Your task to perform on an android device: Go to calendar. Show me events next week Image 0: 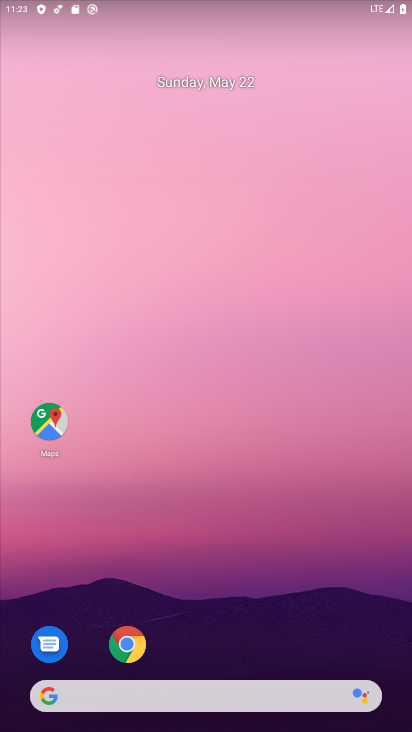
Step 0: click (243, 74)
Your task to perform on an android device: Go to calendar. Show me events next week Image 1: 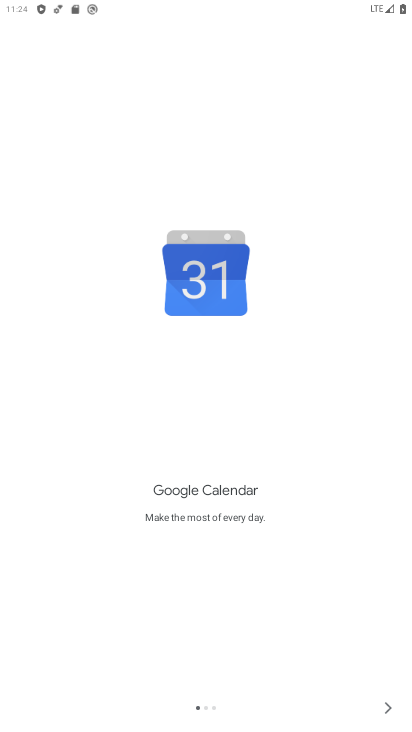
Step 1: click (389, 710)
Your task to perform on an android device: Go to calendar. Show me events next week Image 2: 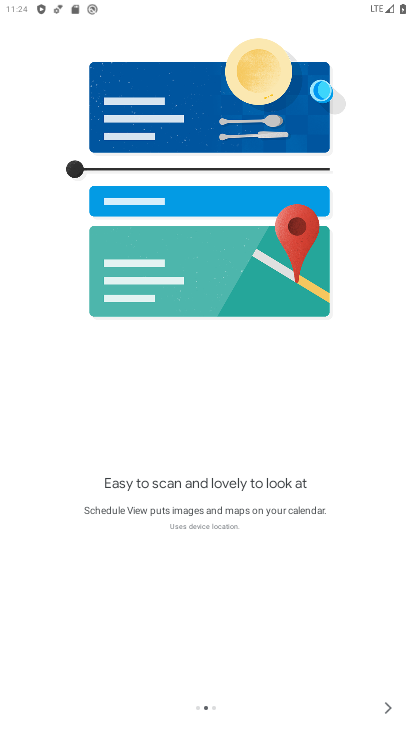
Step 2: click (389, 710)
Your task to perform on an android device: Go to calendar. Show me events next week Image 3: 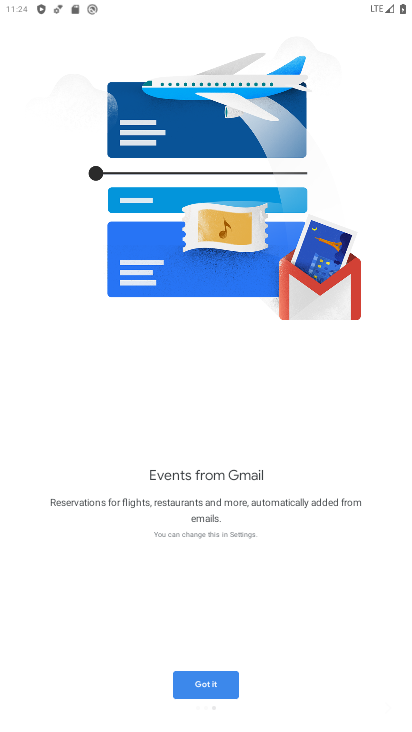
Step 3: click (389, 710)
Your task to perform on an android device: Go to calendar. Show me events next week Image 4: 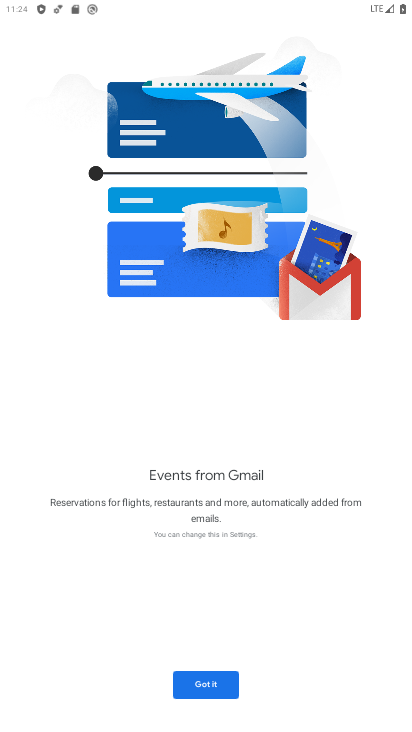
Step 4: click (216, 678)
Your task to perform on an android device: Go to calendar. Show me events next week Image 5: 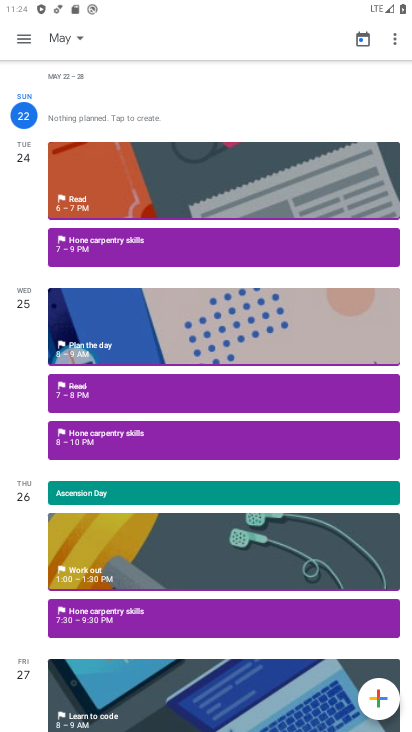
Step 5: click (27, 36)
Your task to perform on an android device: Go to calendar. Show me events next week Image 6: 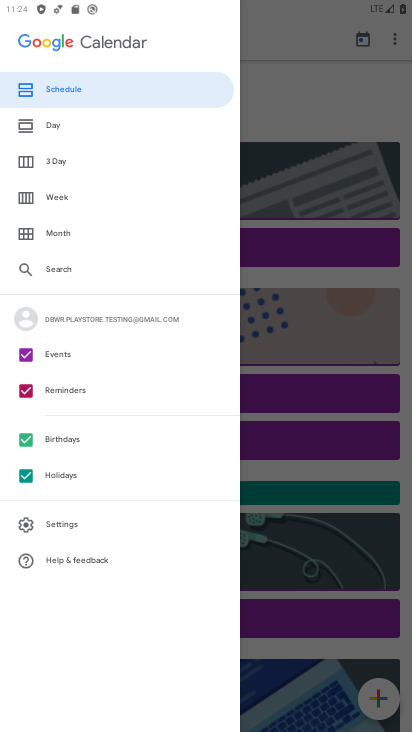
Step 6: click (26, 395)
Your task to perform on an android device: Go to calendar. Show me events next week Image 7: 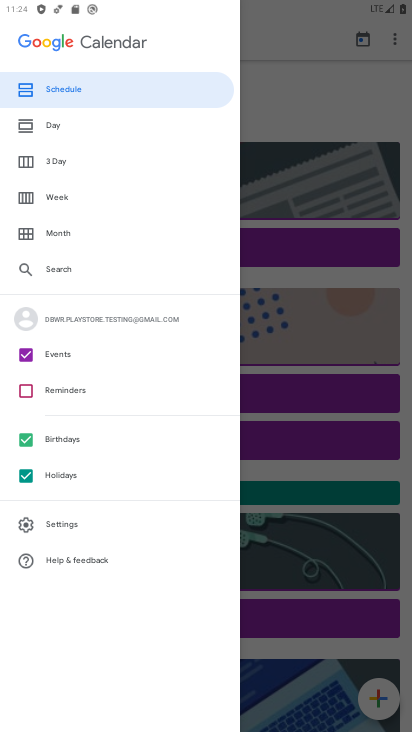
Step 7: click (28, 450)
Your task to perform on an android device: Go to calendar. Show me events next week Image 8: 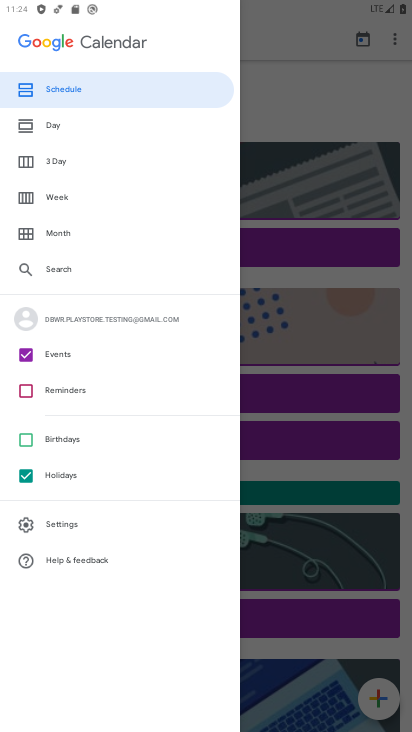
Step 8: click (26, 480)
Your task to perform on an android device: Go to calendar. Show me events next week Image 9: 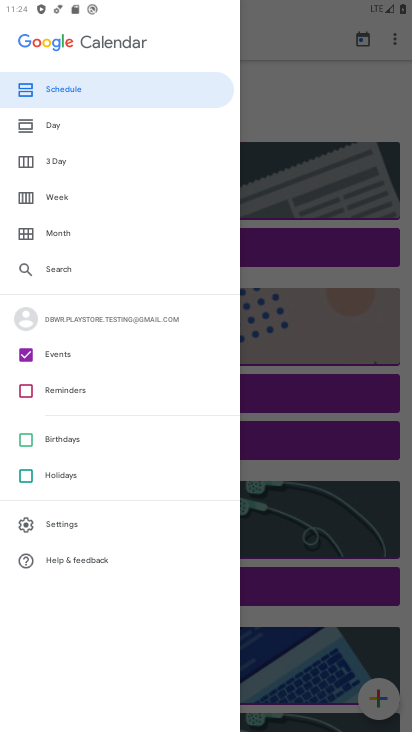
Step 9: click (58, 190)
Your task to perform on an android device: Go to calendar. Show me events next week Image 10: 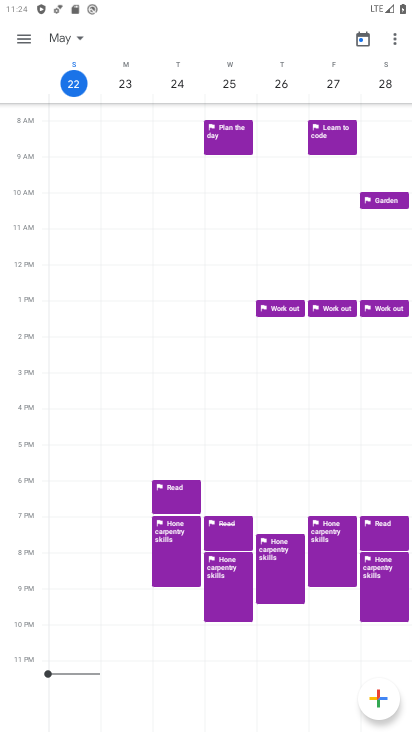
Step 10: click (76, 32)
Your task to perform on an android device: Go to calendar. Show me events next week Image 11: 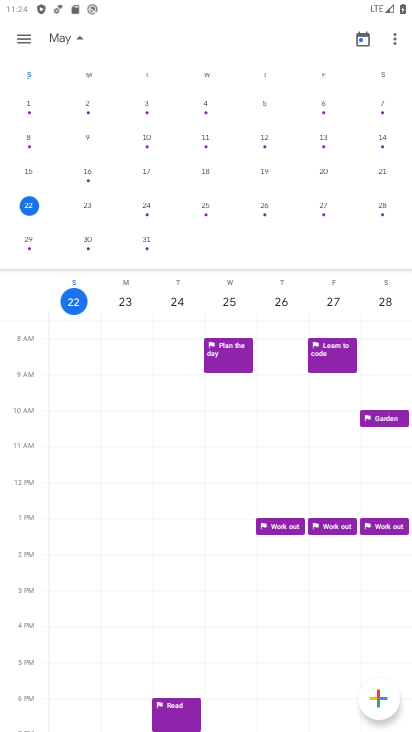
Step 11: click (111, 243)
Your task to perform on an android device: Go to calendar. Show me events next week Image 12: 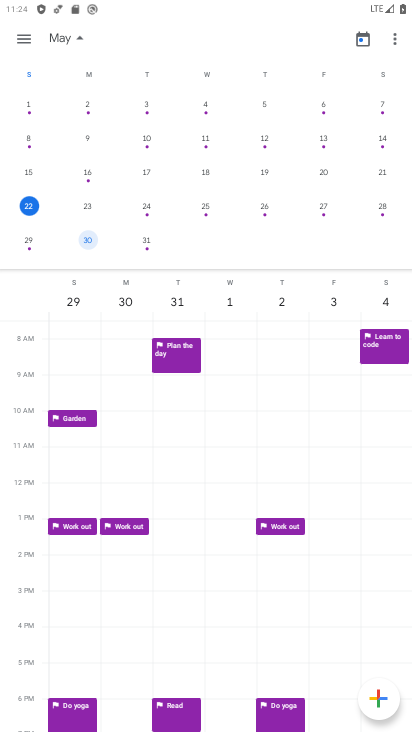
Step 12: task complete